Your task to perform on an android device: Go to CNN.com Image 0: 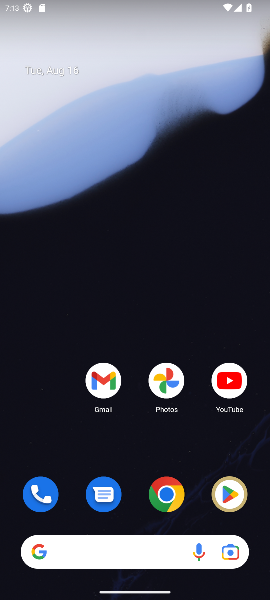
Step 0: click (159, 548)
Your task to perform on an android device: Go to CNN.com Image 1: 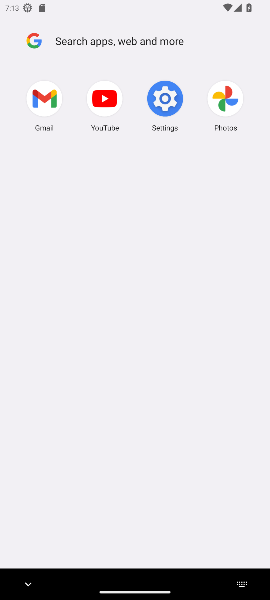
Step 1: type "CNN.com"
Your task to perform on an android device: Go to CNN.com Image 2: 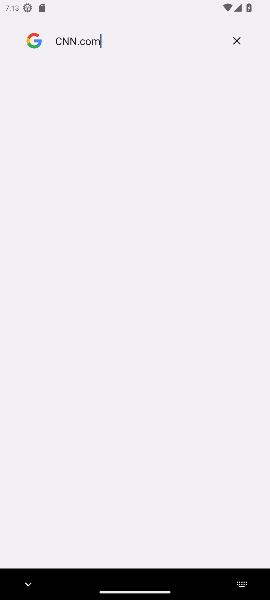
Step 2: type ""
Your task to perform on an android device: Go to CNN.com Image 3: 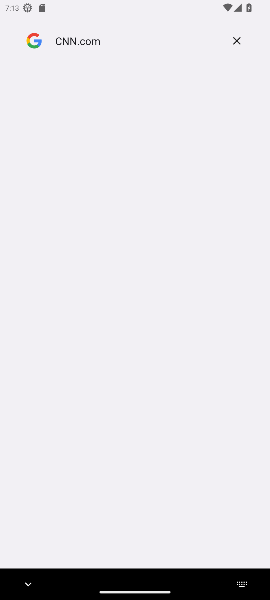
Step 3: press enter
Your task to perform on an android device: Go to CNN.com Image 4: 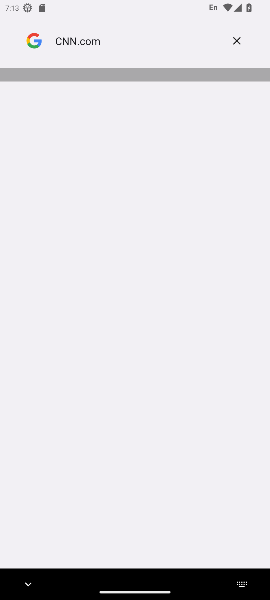
Step 4: task complete